Your task to perform on an android device: choose inbox layout in the gmail app Image 0: 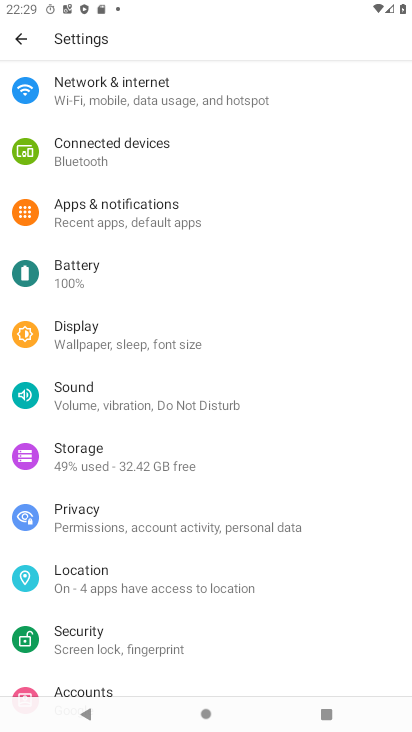
Step 0: press home button
Your task to perform on an android device: choose inbox layout in the gmail app Image 1: 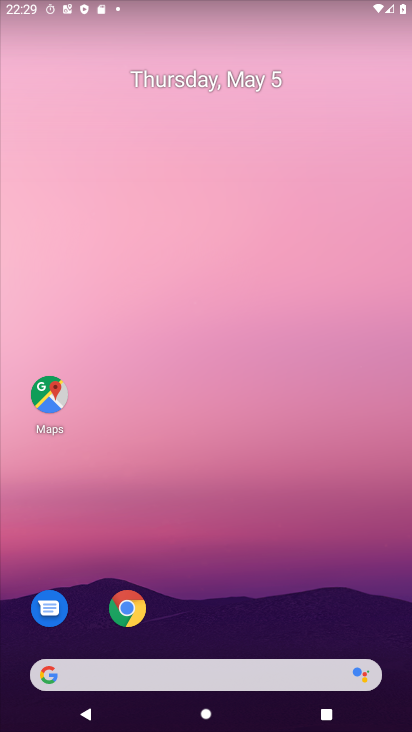
Step 1: drag from (317, 647) to (296, 8)
Your task to perform on an android device: choose inbox layout in the gmail app Image 2: 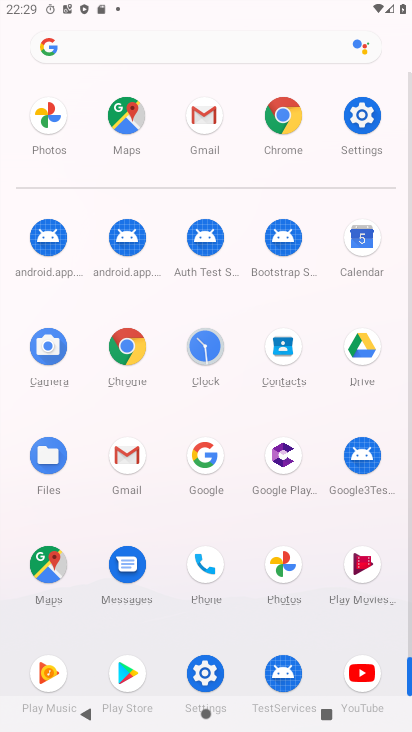
Step 2: click (138, 463)
Your task to perform on an android device: choose inbox layout in the gmail app Image 3: 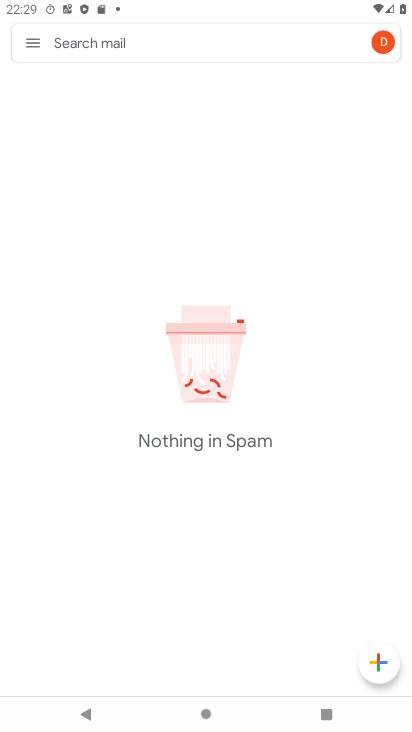
Step 3: click (29, 38)
Your task to perform on an android device: choose inbox layout in the gmail app Image 4: 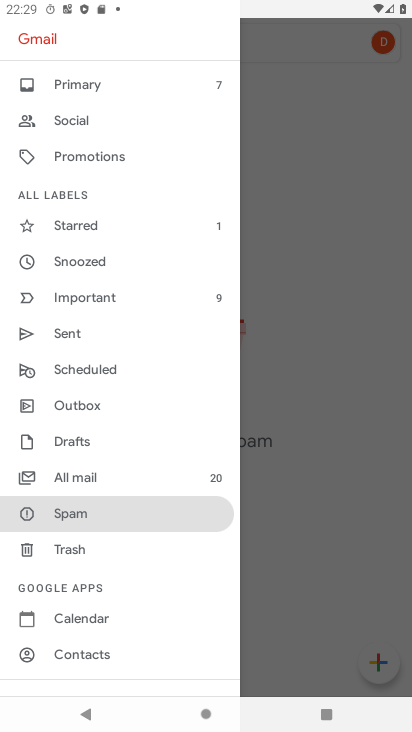
Step 4: drag from (121, 645) to (130, 81)
Your task to perform on an android device: choose inbox layout in the gmail app Image 5: 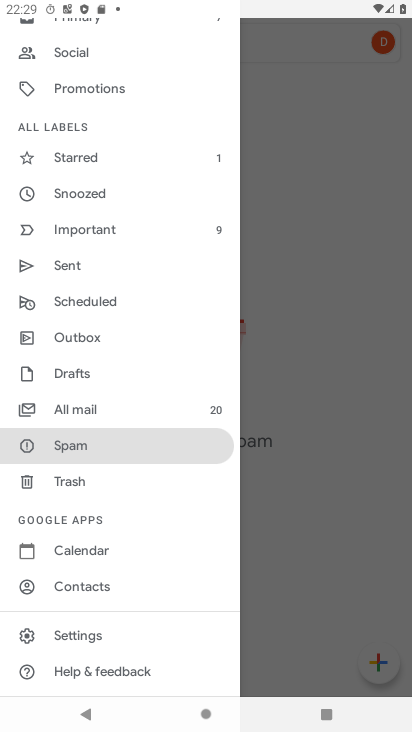
Step 5: click (96, 635)
Your task to perform on an android device: choose inbox layout in the gmail app Image 6: 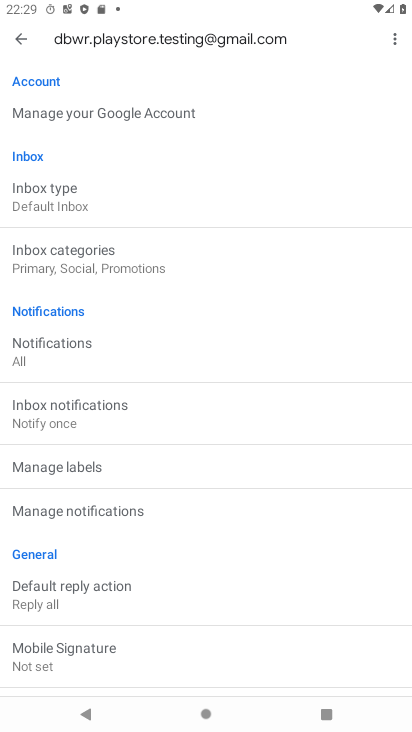
Step 6: click (105, 207)
Your task to perform on an android device: choose inbox layout in the gmail app Image 7: 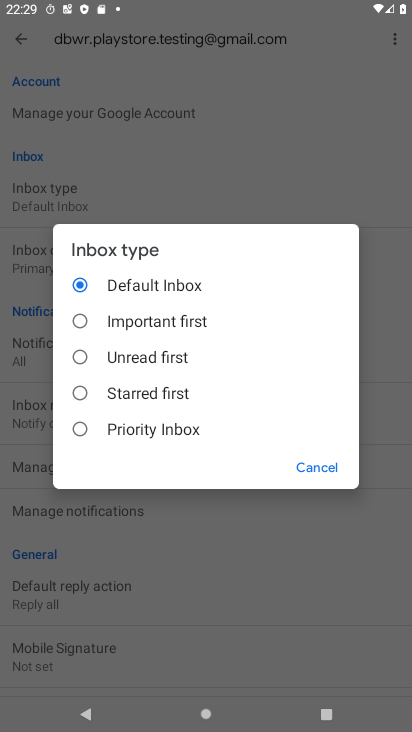
Step 7: click (78, 355)
Your task to perform on an android device: choose inbox layout in the gmail app Image 8: 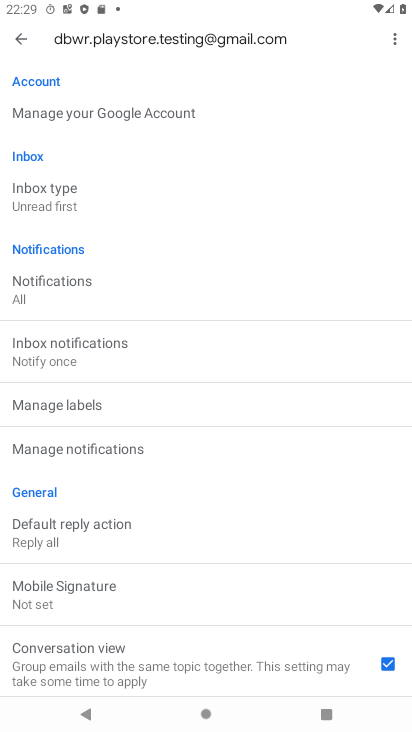
Step 8: task complete